Your task to perform on an android device: Open Reddit.com Image 0: 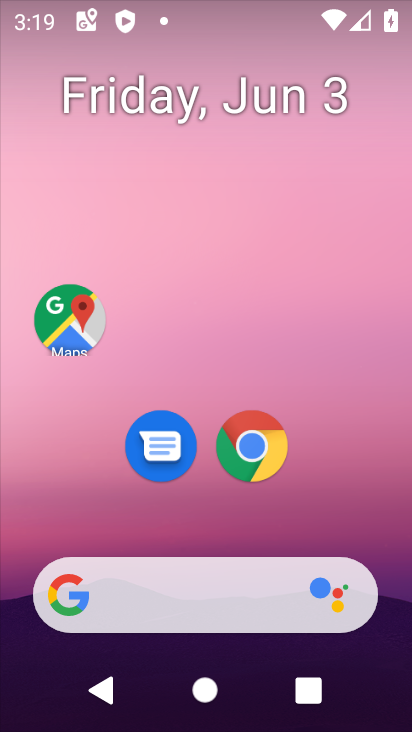
Step 0: click (284, 583)
Your task to perform on an android device: Open Reddit.com Image 1: 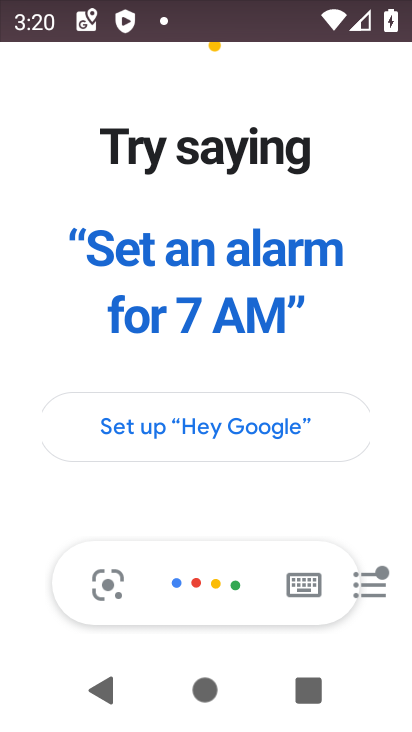
Step 1: type "reedit"
Your task to perform on an android device: Open Reddit.com Image 2: 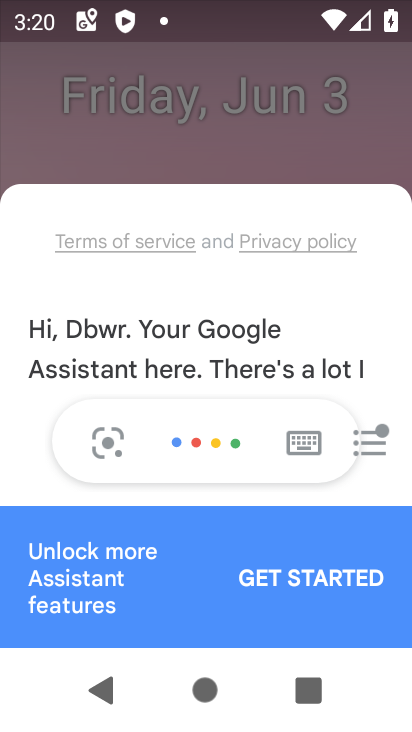
Step 2: task complete